Your task to perform on an android device: open app "Airtel Thanks" (install if not already installed) and go to login screen Image 0: 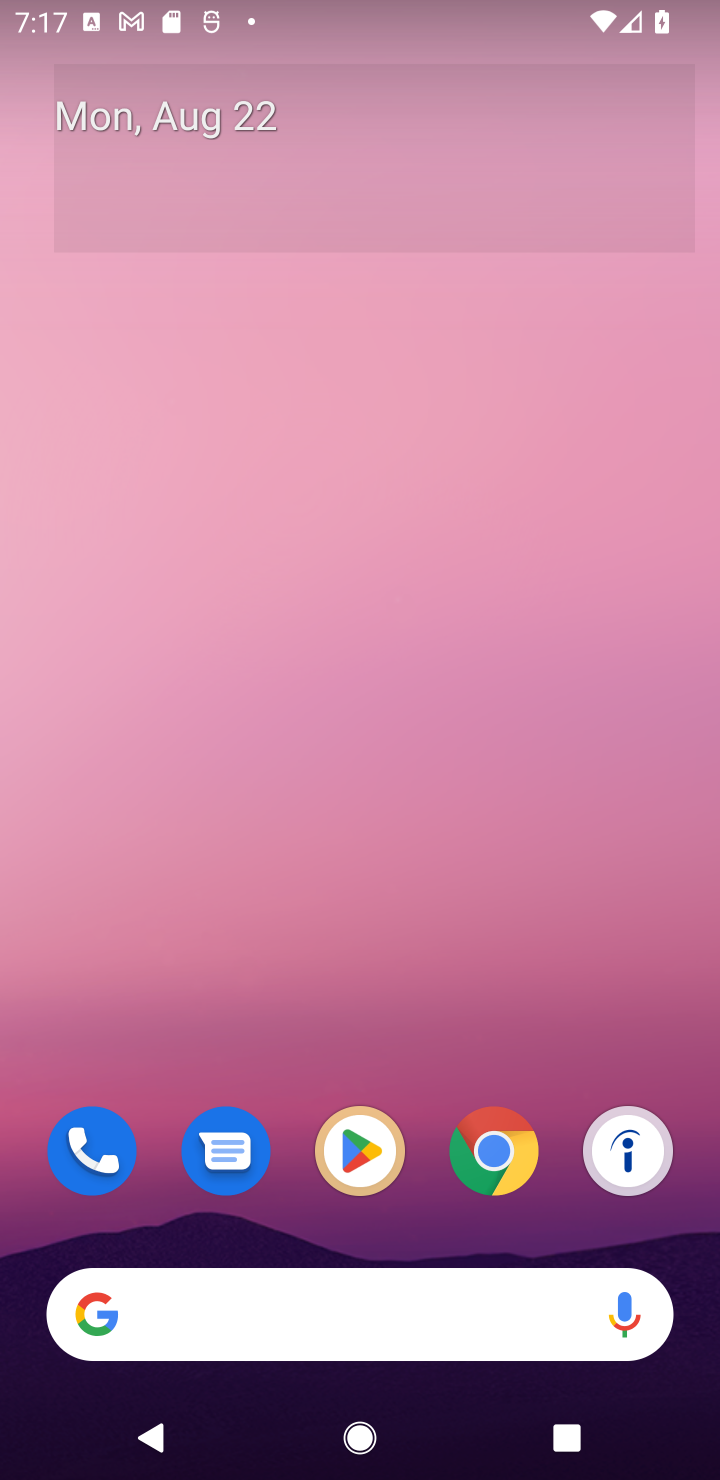
Step 0: click (354, 1142)
Your task to perform on an android device: open app "Airtel Thanks" (install if not already installed) and go to login screen Image 1: 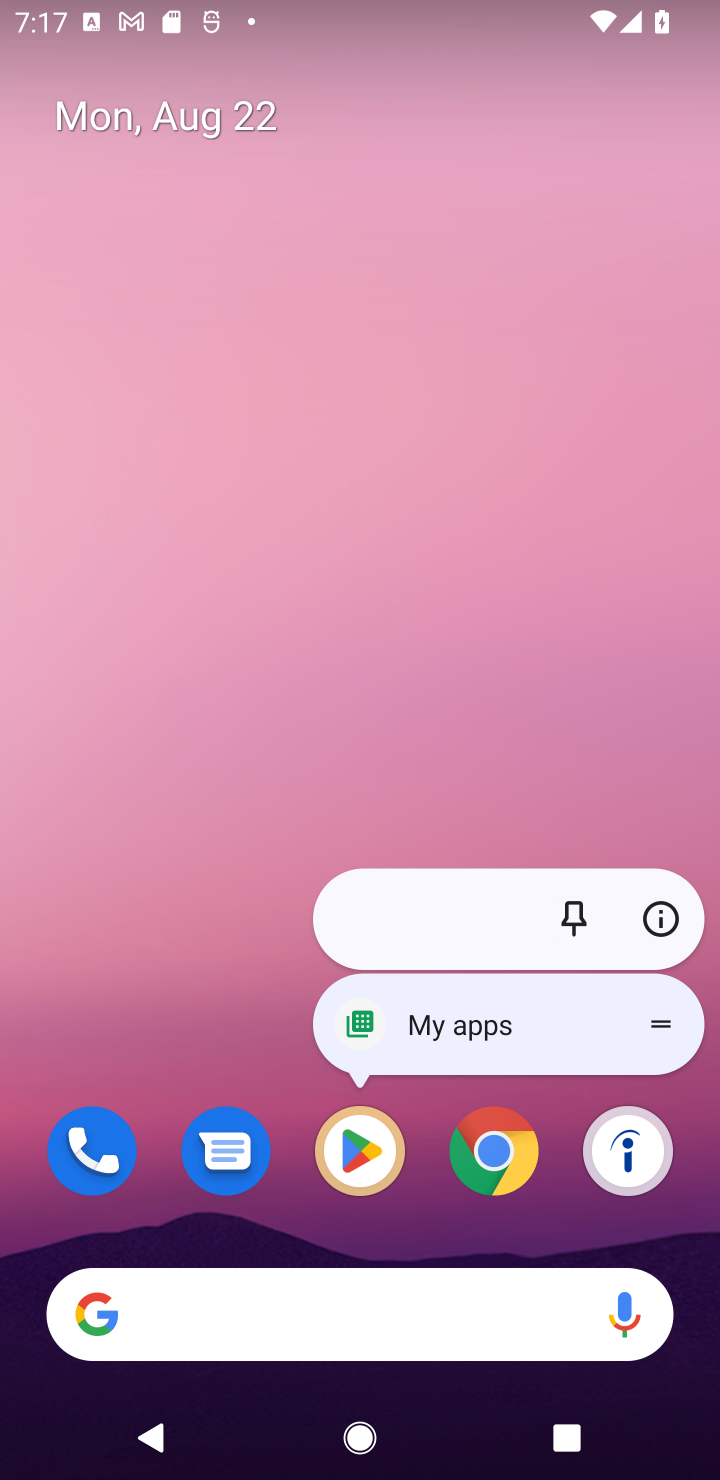
Step 1: click (352, 1149)
Your task to perform on an android device: open app "Airtel Thanks" (install if not already installed) and go to login screen Image 2: 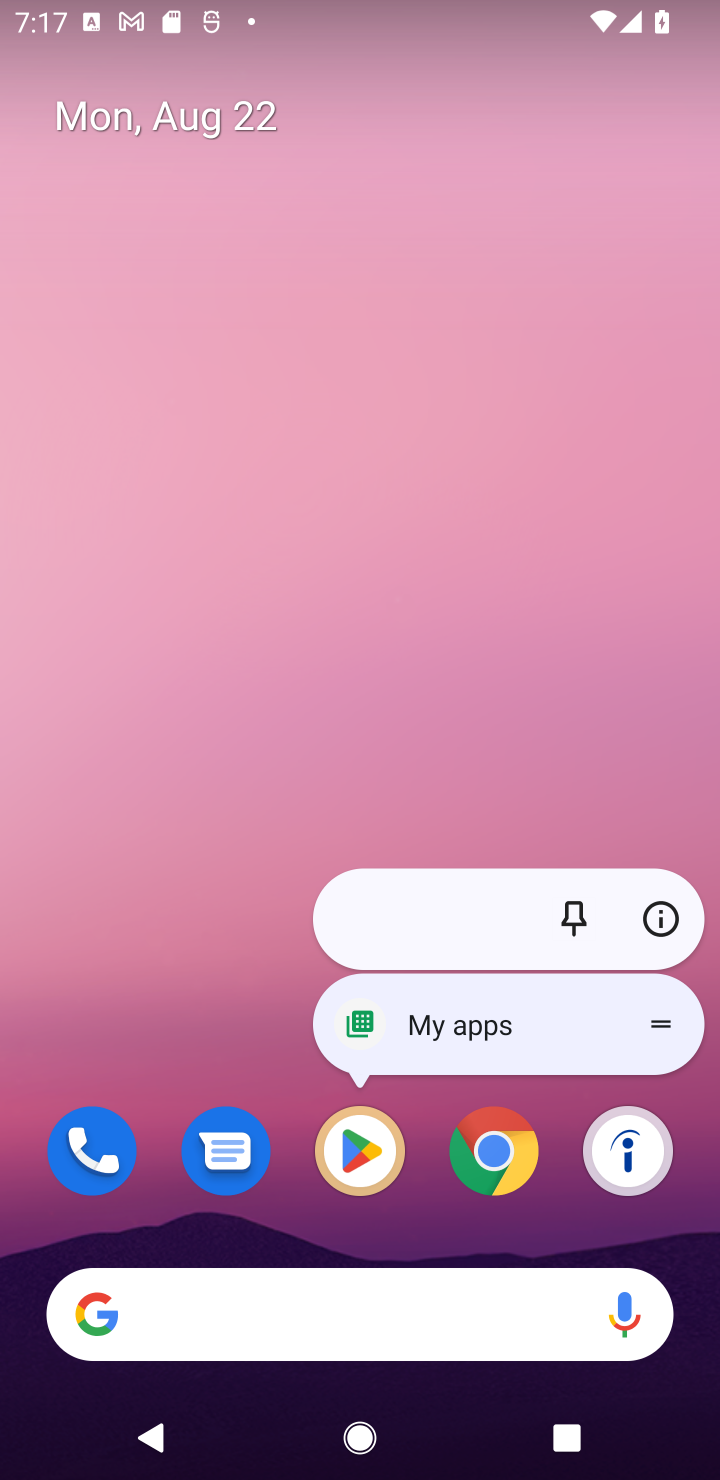
Step 2: click (352, 1149)
Your task to perform on an android device: open app "Airtel Thanks" (install if not already installed) and go to login screen Image 3: 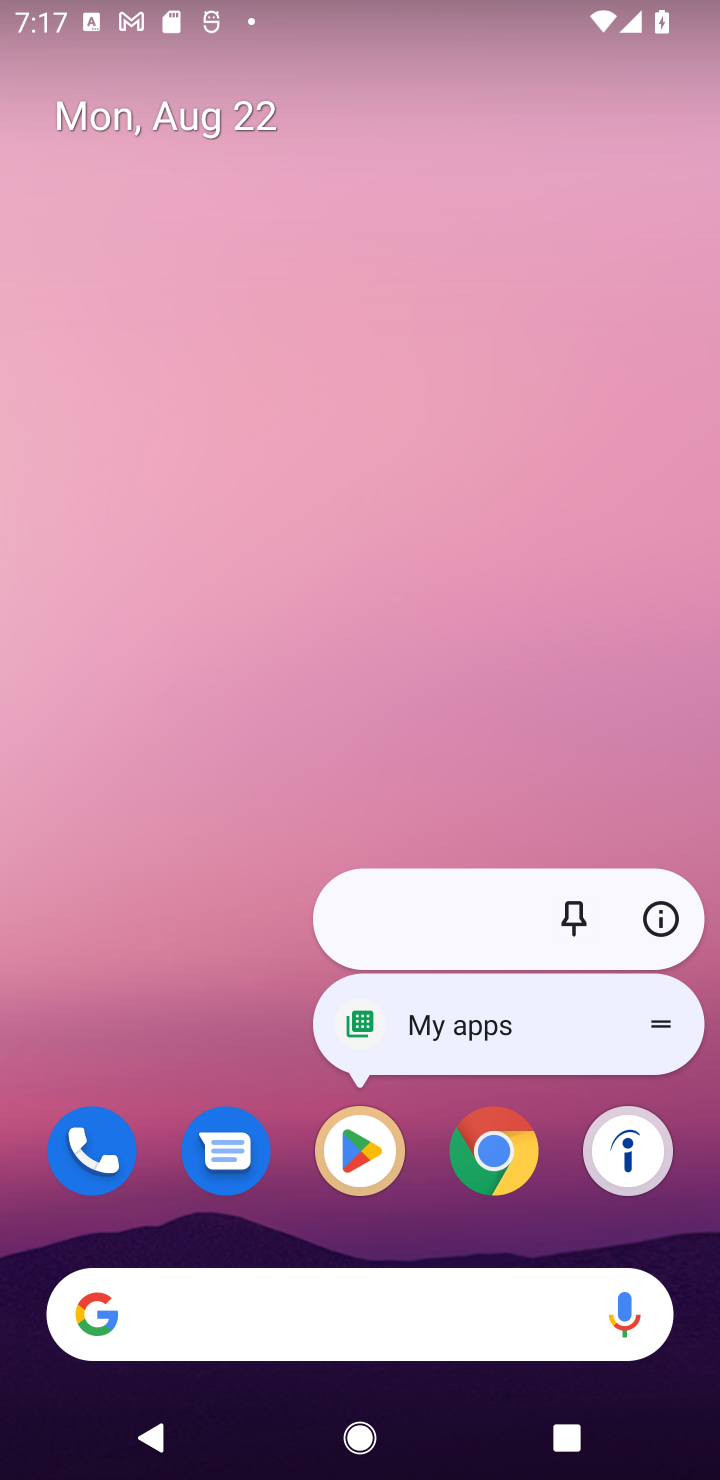
Step 3: click (352, 1149)
Your task to perform on an android device: open app "Airtel Thanks" (install if not already installed) and go to login screen Image 4: 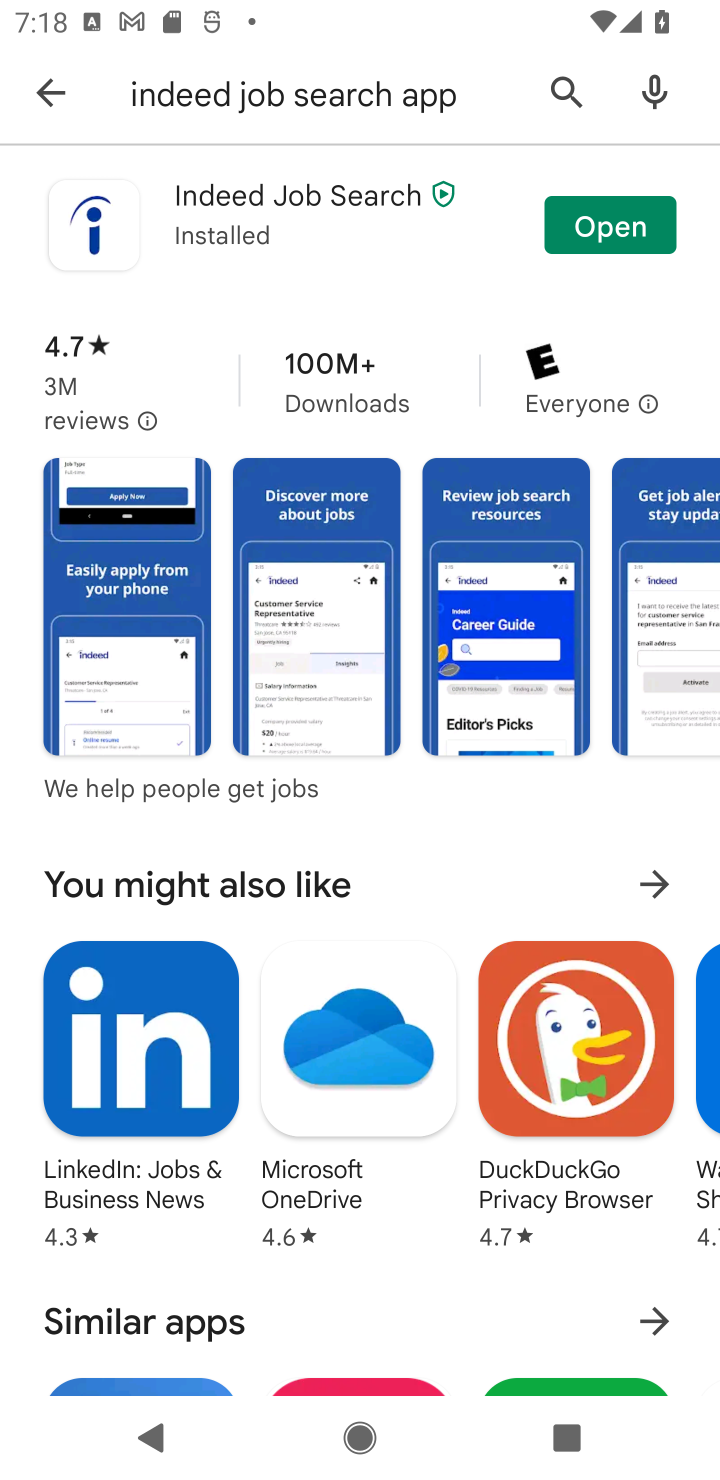
Step 4: click (566, 91)
Your task to perform on an android device: open app "Airtel Thanks" (install if not already installed) and go to login screen Image 5: 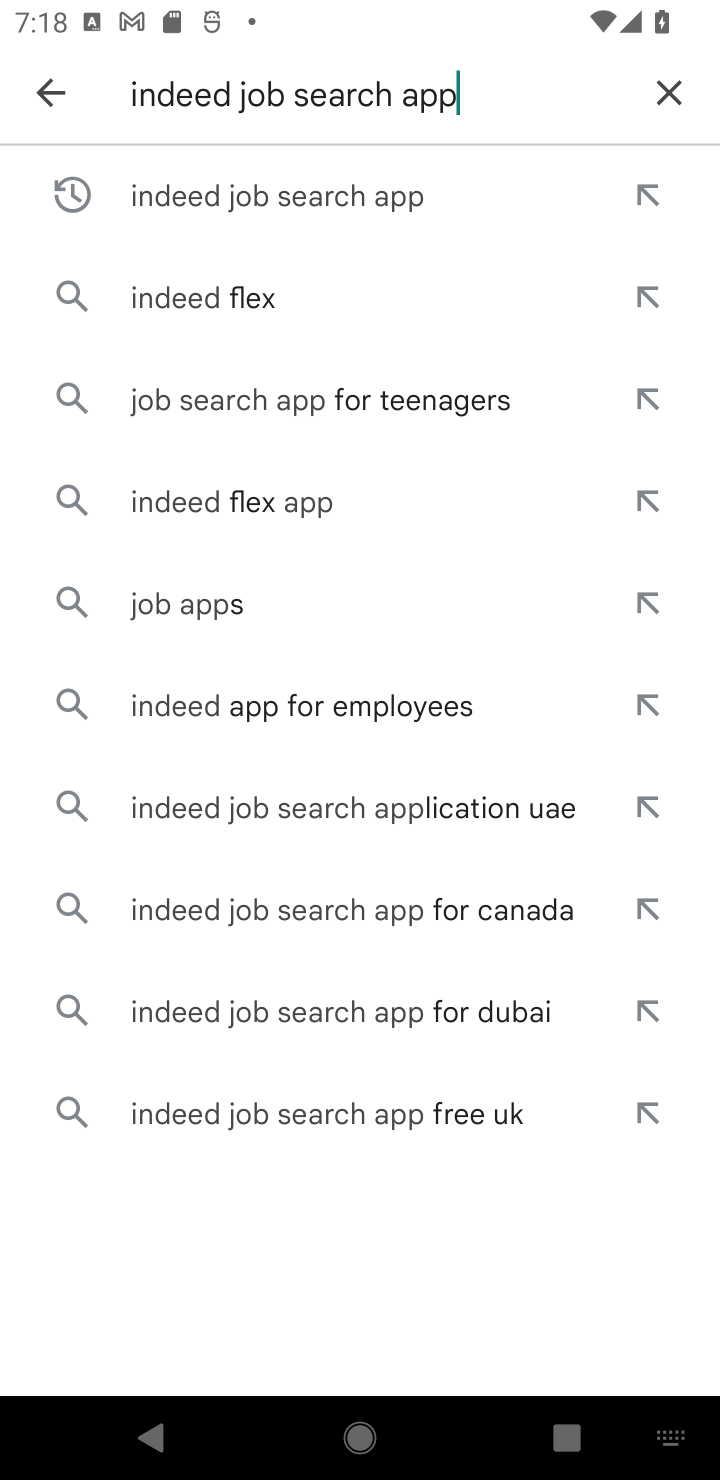
Step 5: click (655, 86)
Your task to perform on an android device: open app "Airtel Thanks" (install if not already installed) and go to login screen Image 6: 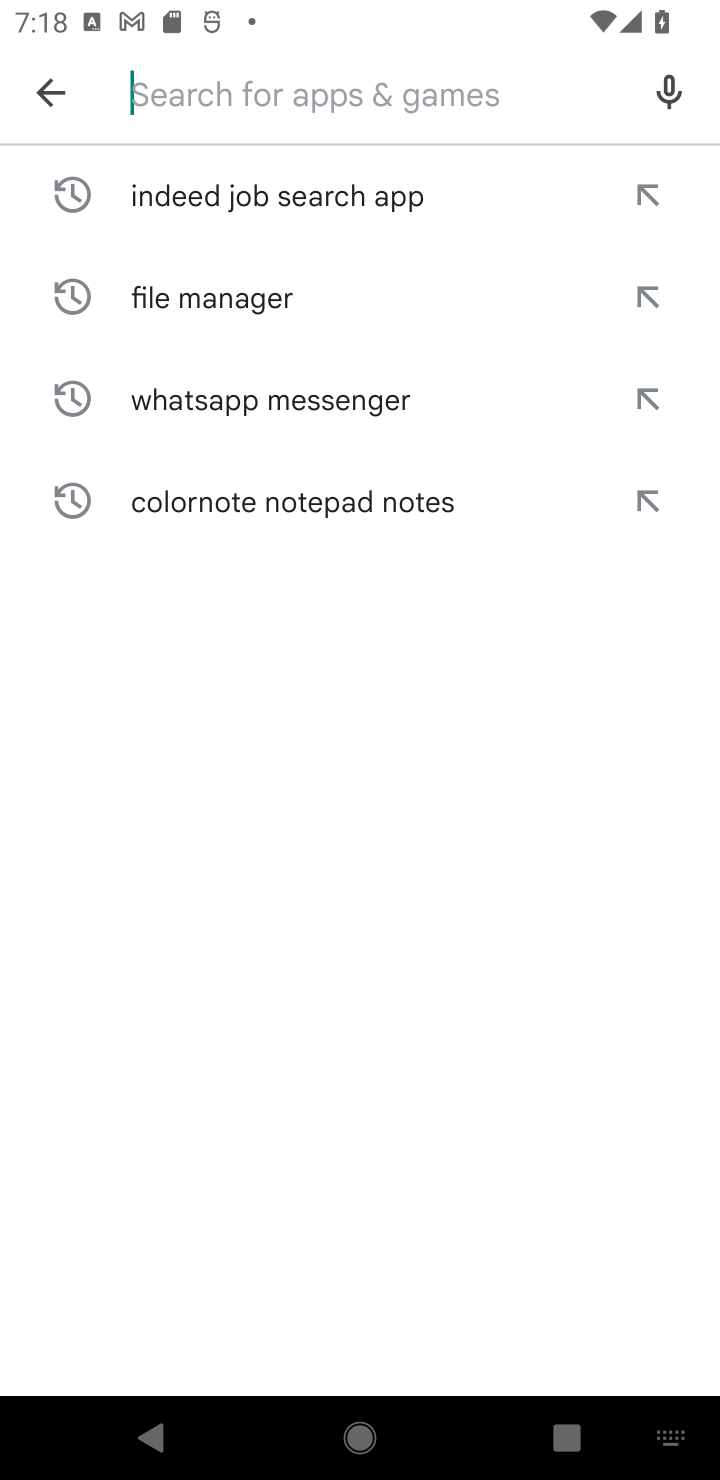
Step 6: type "Airtel Thanks"
Your task to perform on an android device: open app "Airtel Thanks" (install if not already installed) and go to login screen Image 7: 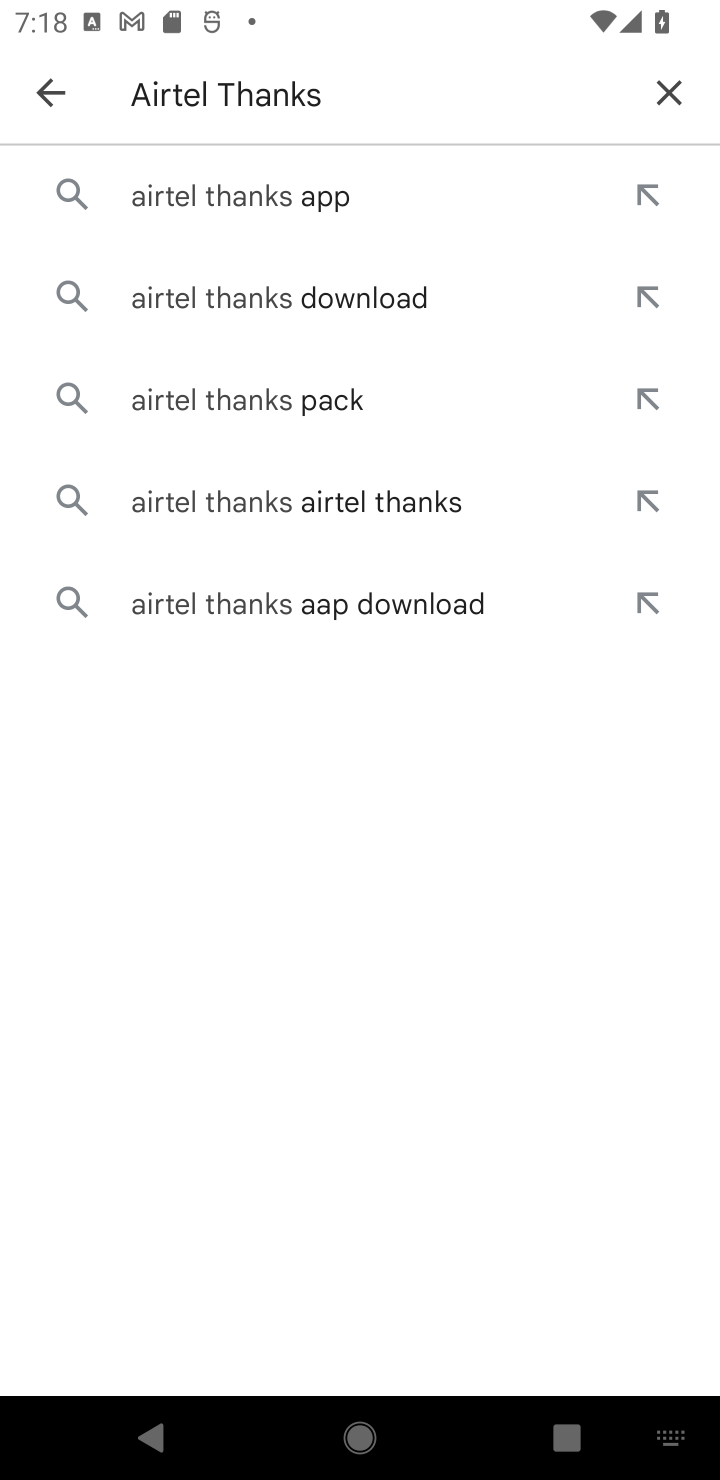
Step 7: click (292, 206)
Your task to perform on an android device: open app "Airtel Thanks" (install if not already installed) and go to login screen Image 8: 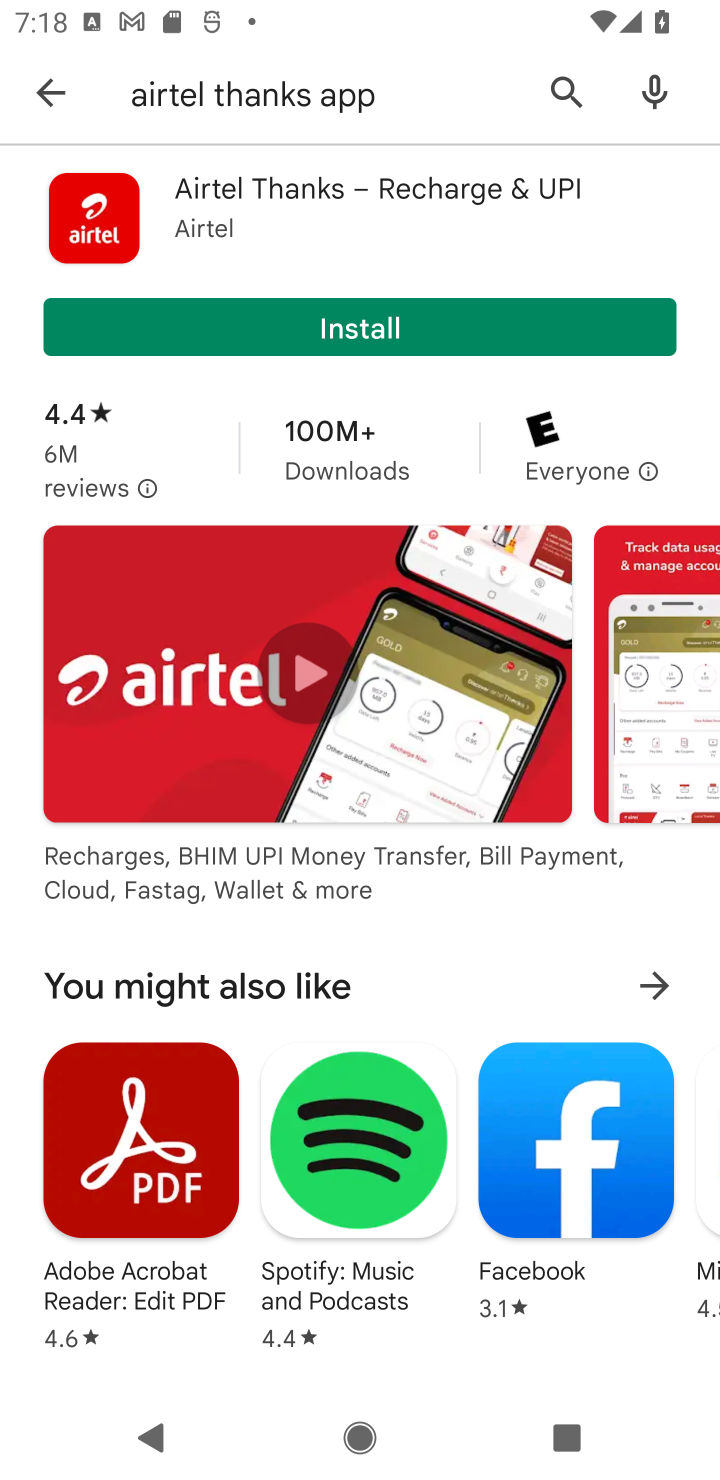
Step 8: click (388, 329)
Your task to perform on an android device: open app "Airtel Thanks" (install if not already installed) and go to login screen Image 9: 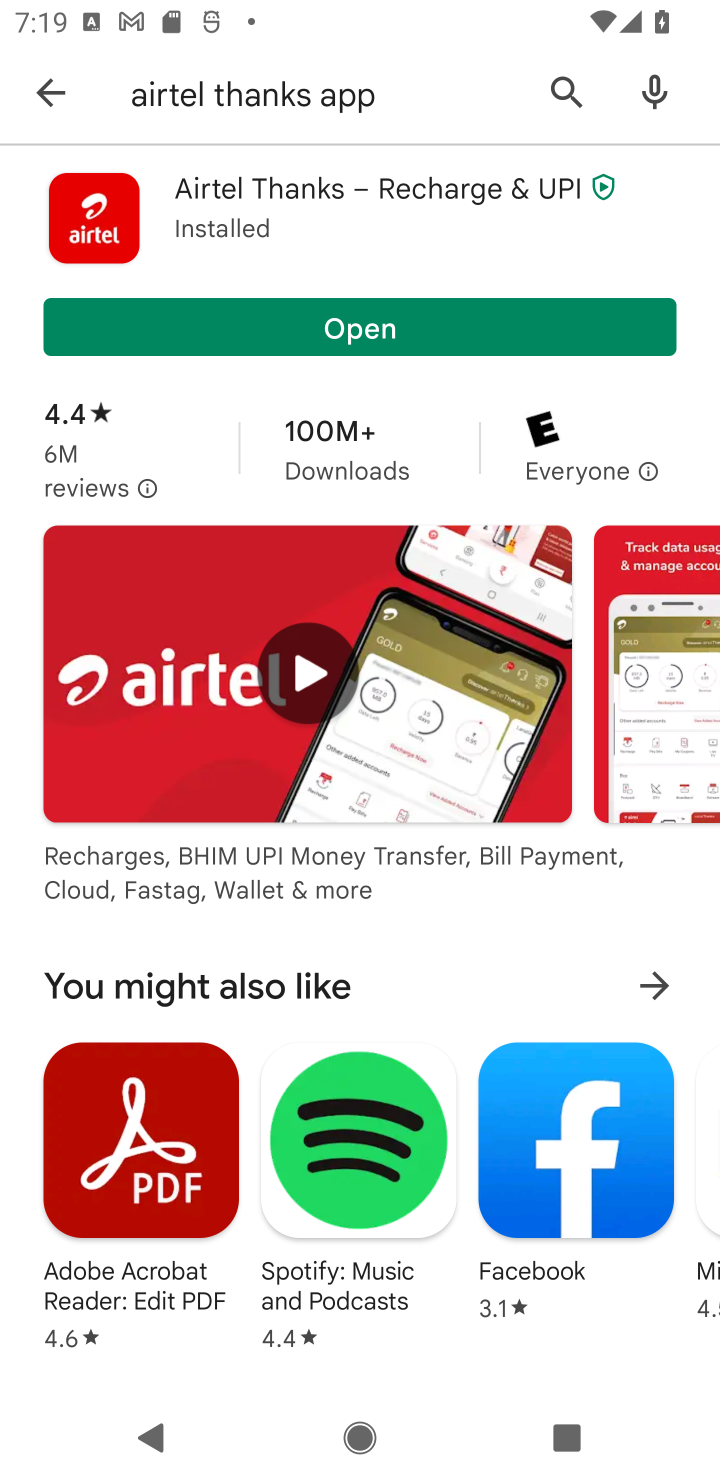
Step 9: click (556, 333)
Your task to perform on an android device: open app "Airtel Thanks" (install if not already installed) and go to login screen Image 10: 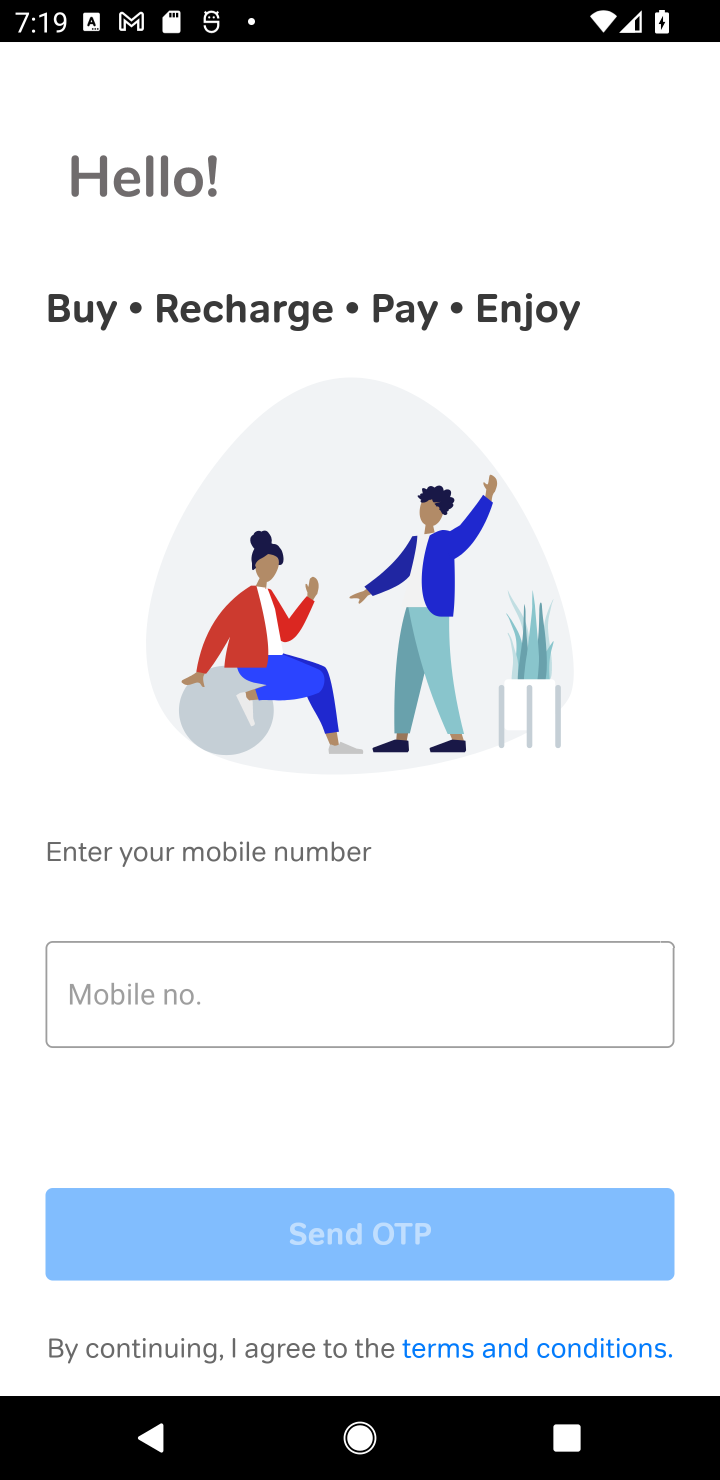
Step 10: task complete